Your task to perform on an android device: Go to Yahoo.com Image 0: 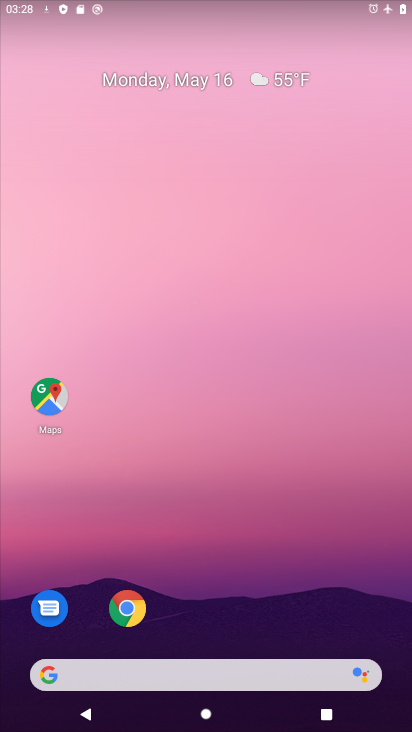
Step 0: click (134, 611)
Your task to perform on an android device: Go to Yahoo.com Image 1: 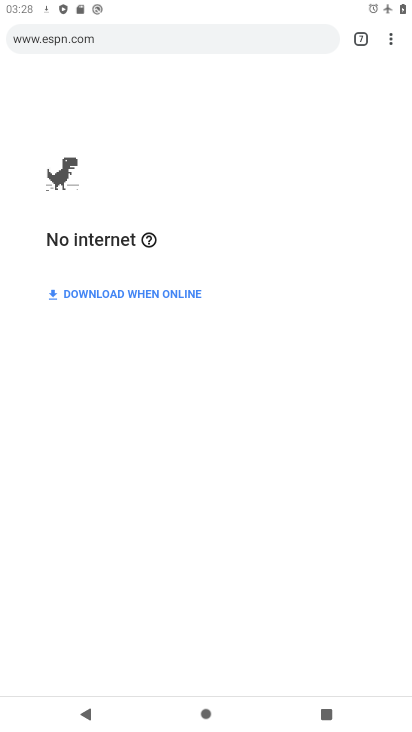
Step 1: task complete